Your task to perform on an android device: Show me the alarms in the clock app Image 0: 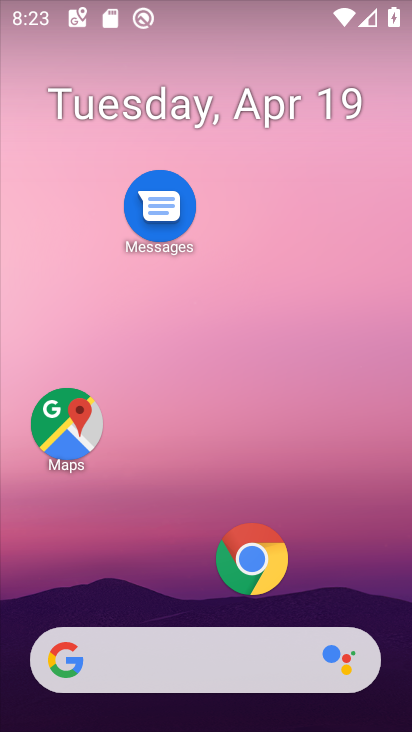
Step 0: drag from (168, 686) to (166, 301)
Your task to perform on an android device: Show me the alarms in the clock app Image 1: 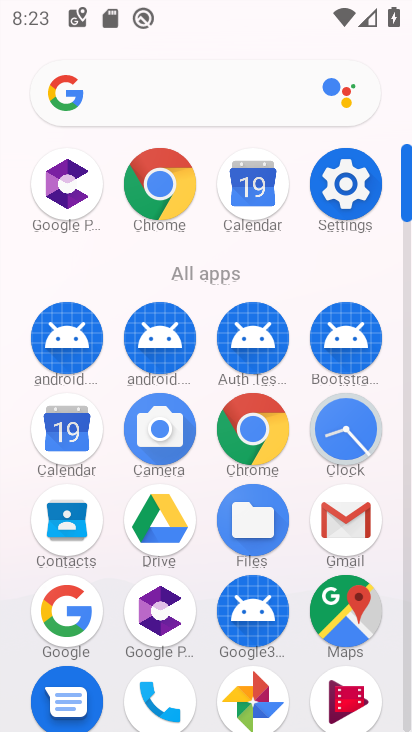
Step 1: click (322, 435)
Your task to perform on an android device: Show me the alarms in the clock app Image 2: 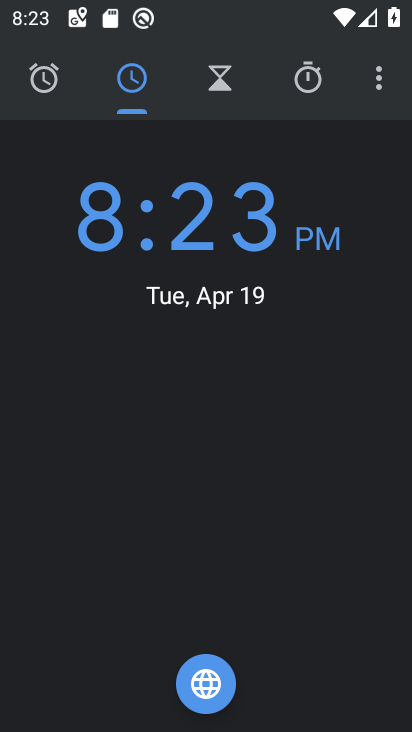
Step 2: click (56, 80)
Your task to perform on an android device: Show me the alarms in the clock app Image 3: 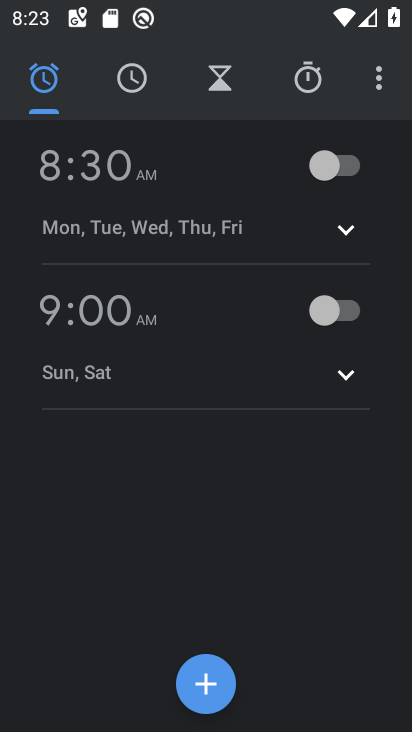
Step 3: task complete